Your task to perform on an android device: toggle translation in the chrome app Image 0: 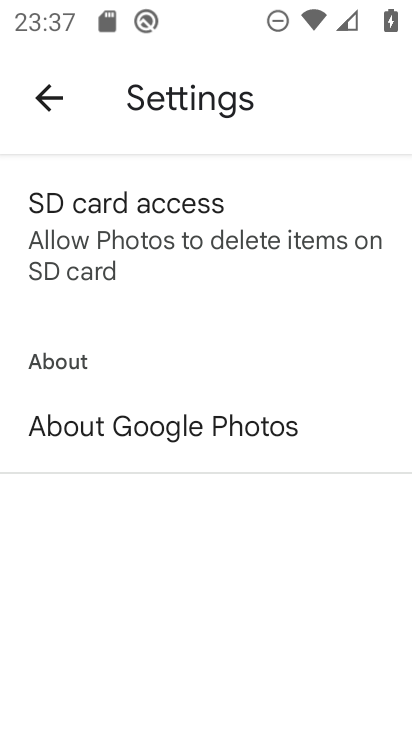
Step 0: press home button
Your task to perform on an android device: toggle translation in the chrome app Image 1: 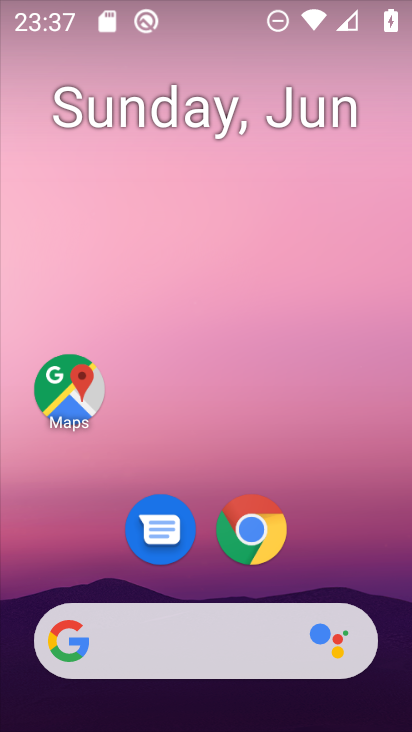
Step 1: click (256, 529)
Your task to perform on an android device: toggle translation in the chrome app Image 2: 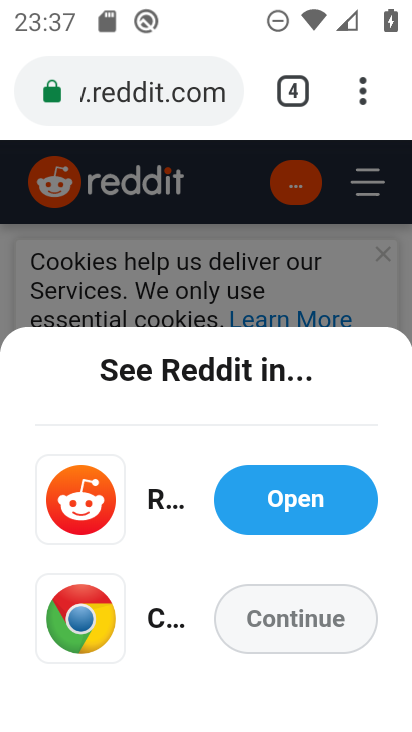
Step 2: click (359, 96)
Your task to perform on an android device: toggle translation in the chrome app Image 3: 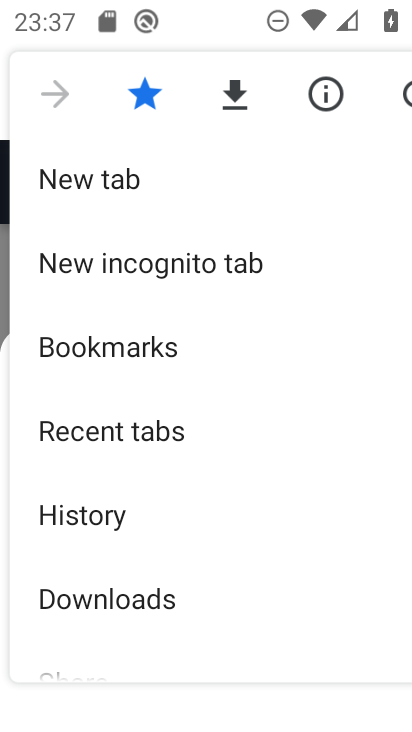
Step 3: drag from (242, 624) to (255, 132)
Your task to perform on an android device: toggle translation in the chrome app Image 4: 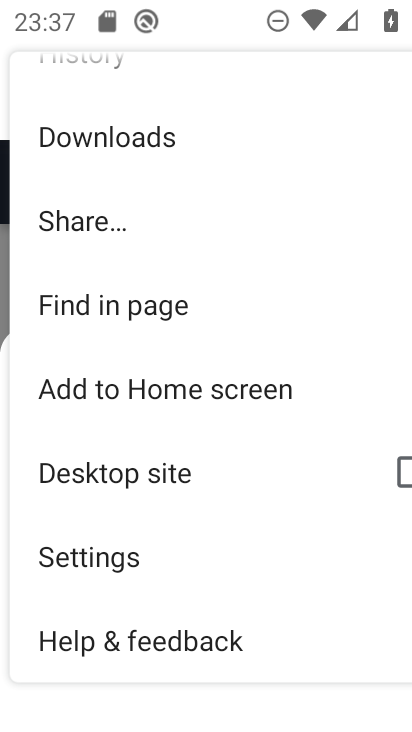
Step 4: click (101, 550)
Your task to perform on an android device: toggle translation in the chrome app Image 5: 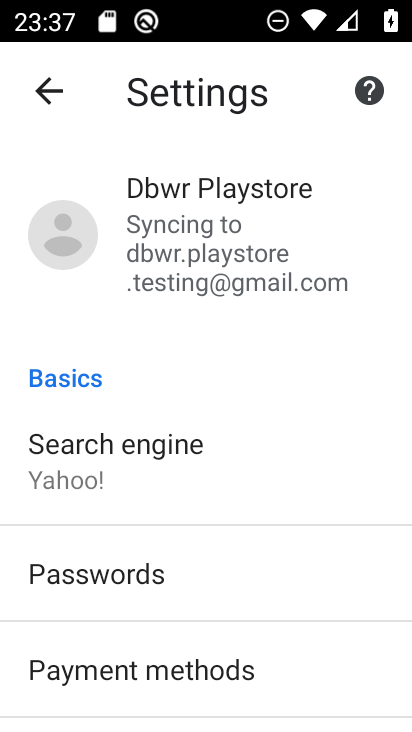
Step 5: drag from (264, 645) to (231, 92)
Your task to perform on an android device: toggle translation in the chrome app Image 6: 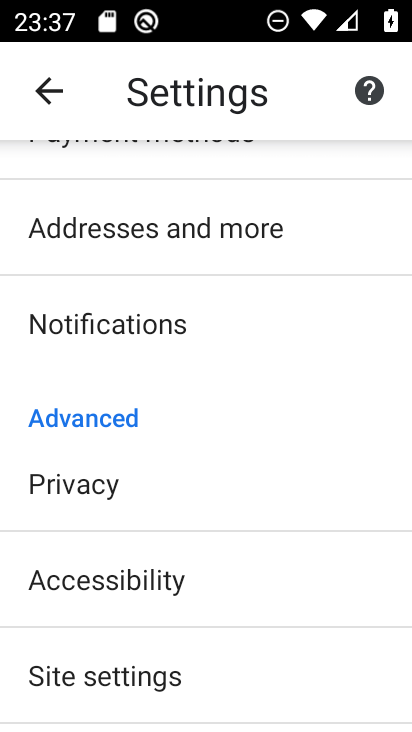
Step 6: drag from (236, 653) to (284, 266)
Your task to perform on an android device: toggle translation in the chrome app Image 7: 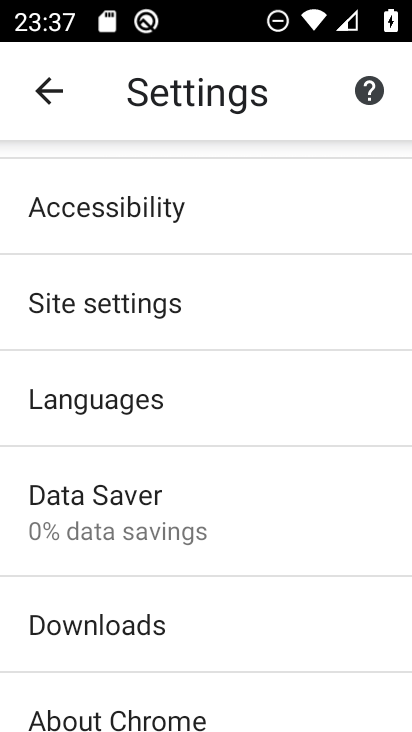
Step 7: click (86, 393)
Your task to perform on an android device: toggle translation in the chrome app Image 8: 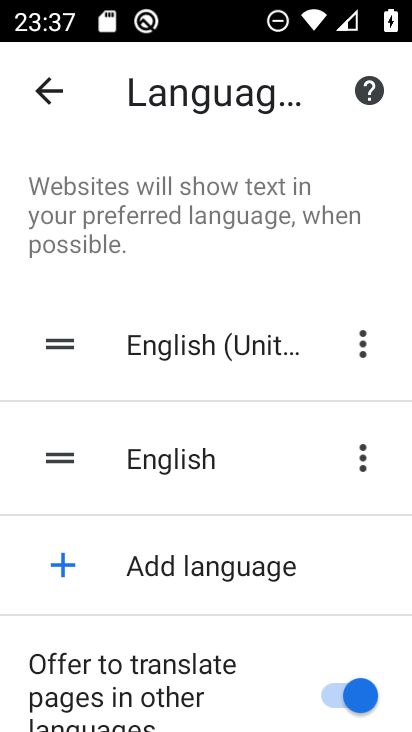
Step 8: click (323, 685)
Your task to perform on an android device: toggle translation in the chrome app Image 9: 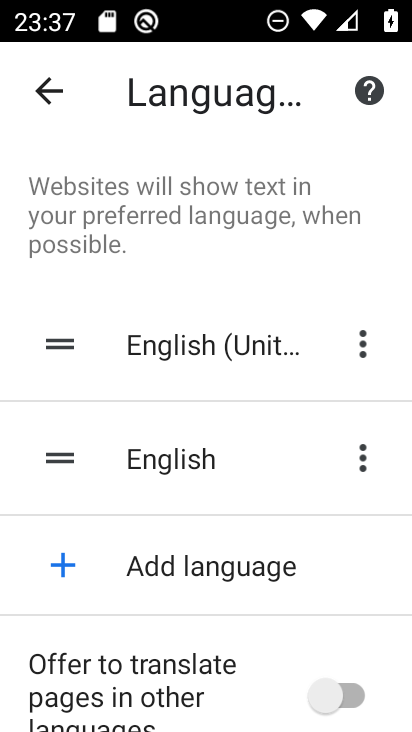
Step 9: task complete